Your task to perform on an android device: What's the weather today? Image 0: 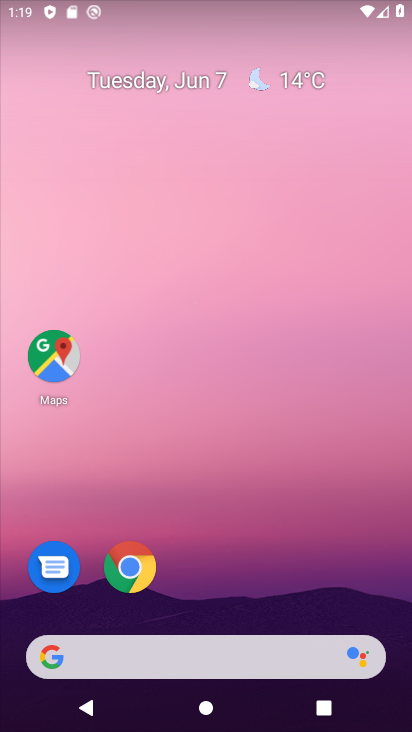
Step 0: drag from (233, 435) to (216, 67)
Your task to perform on an android device: What's the weather today? Image 1: 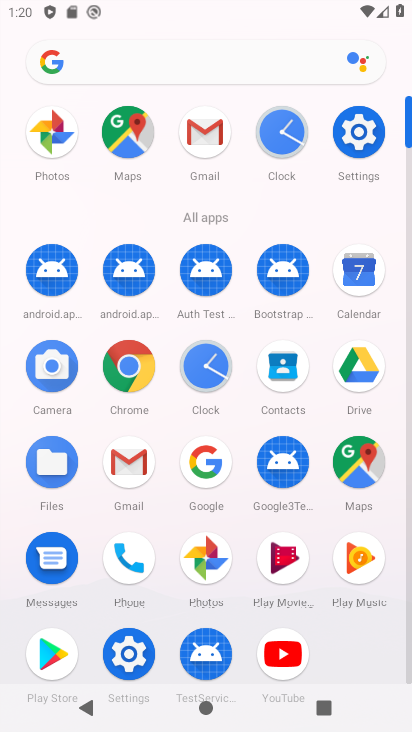
Step 1: click (203, 459)
Your task to perform on an android device: What's the weather today? Image 2: 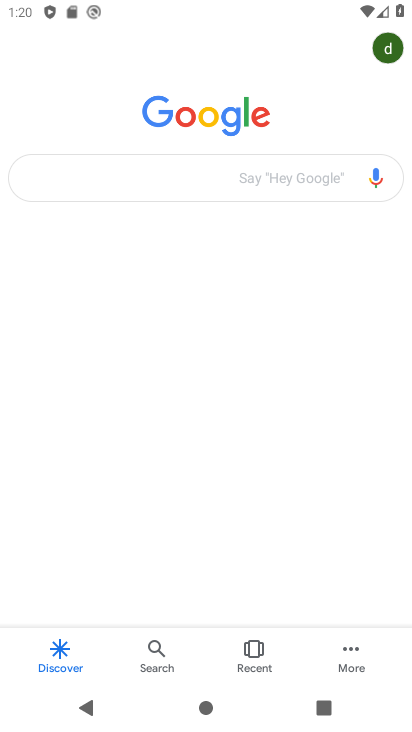
Step 2: click (222, 184)
Your task to perform on an android device: What's the weather today? Image 3: 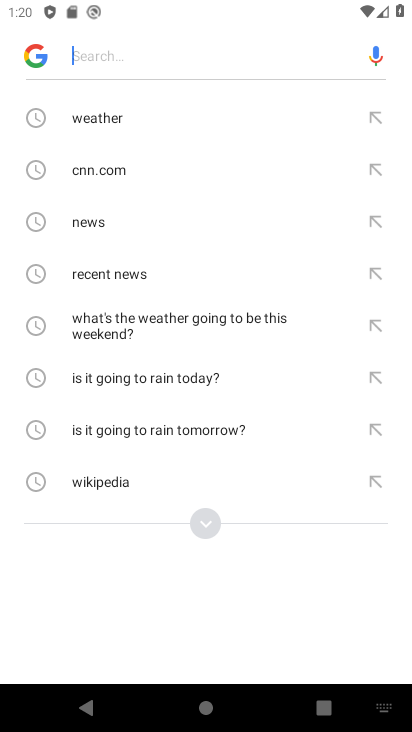
Step 3: click (134, 119)
Your task to perform on an android device: What's the weather today? Image 4: 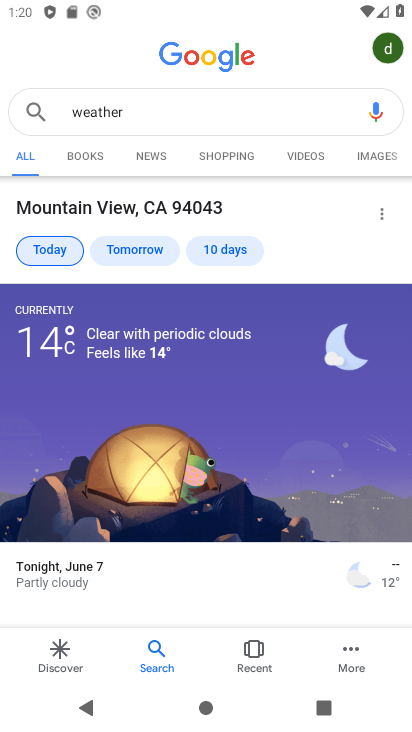
Step 4: task complete